Your task to perform on an android device: What's the weather going to be this weekend? Image 0: 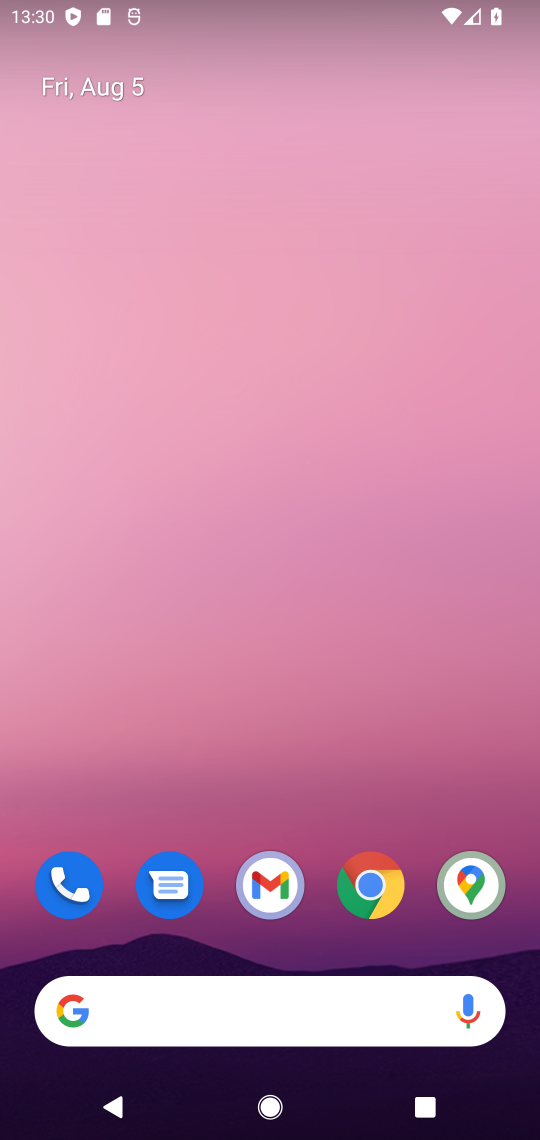
Step 0: click (163, 1015)
Your task to perform on an android device: What's the weather going to be this weekend? Image 1: 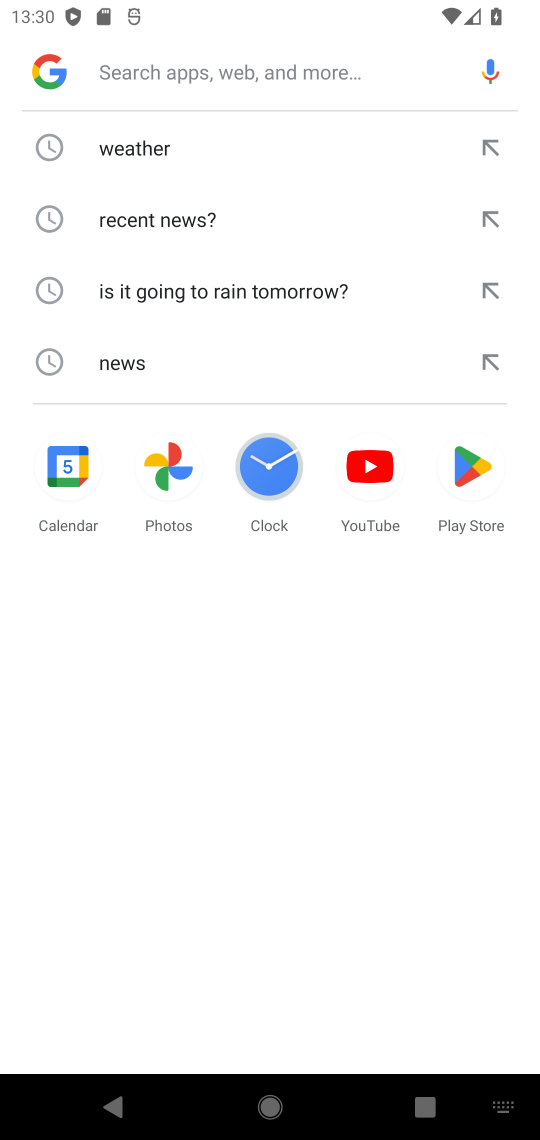
Step 1: click (135, 158)
Your task to perform on an android device: What's the weather going to be this weekend? Image 2: 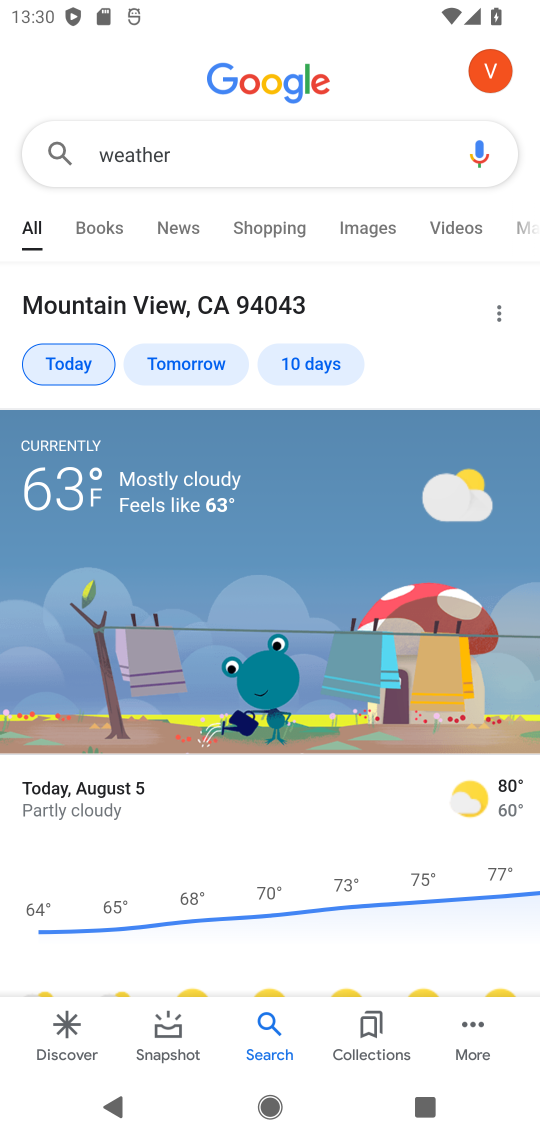
Step 2: click (312, 350)
Your task to perform on an android device: What's the weather going to be this weekend? Image 3: 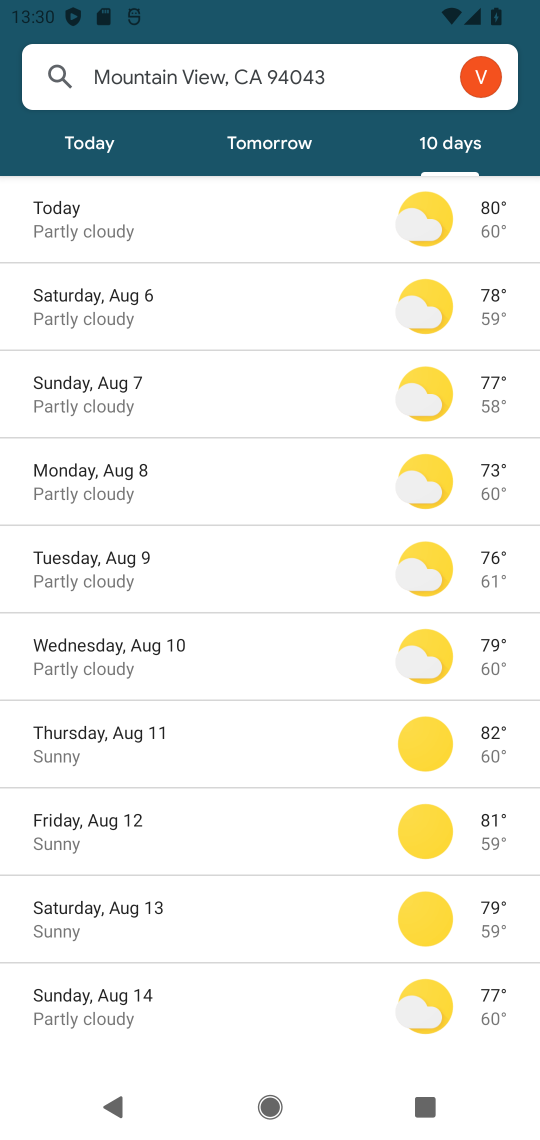
Step 3: task complete